Your task to perform on an android device: Open calendar and show me the fourth week of next month Image 0: 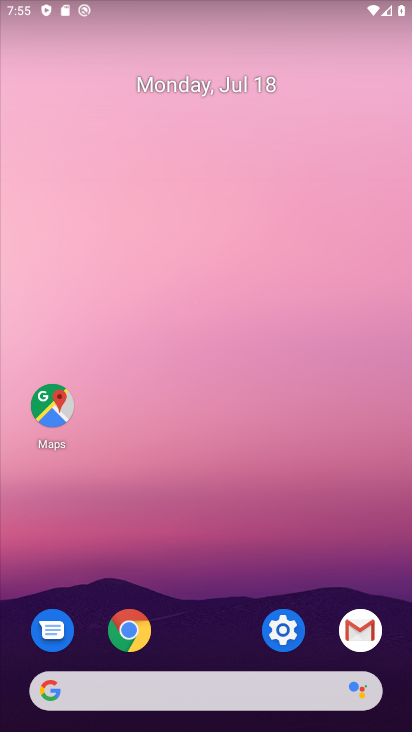
Step 0: drag from (303, 709) to (271, 134)
Your task to perform on an android device: Open calendar and show me the fourth week of next month Image 1: 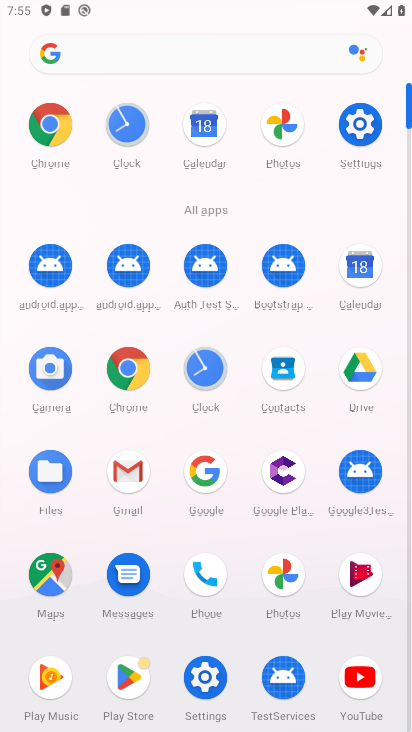
Step 1: click (340, 276)
Your task to perform on an android device: Open calendar and show me the fourth week of next month Image 2: 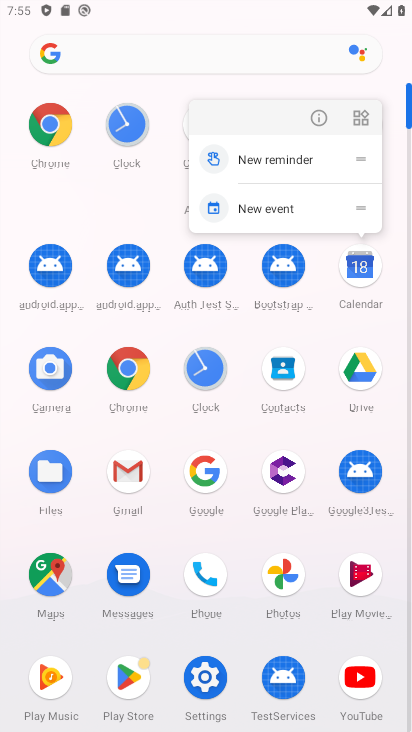
Step 2: click (346, 265)
Your task to perform on an android device: Open calendar and show me the fourth week of next month Image 3: 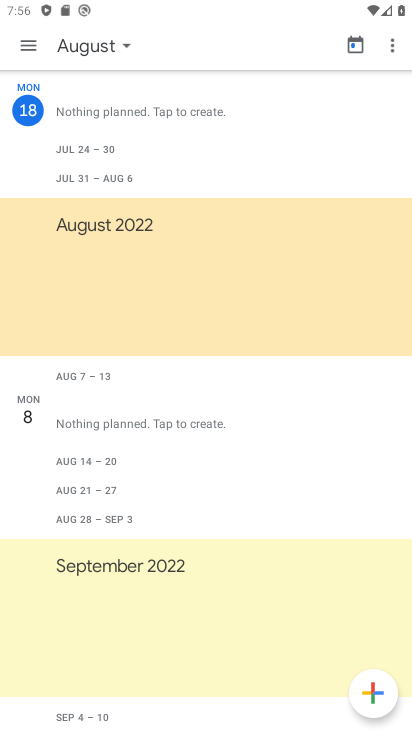
Step 3: click (25, 41)
Your task to perform on an android device: Open calendar and show me the fourth week of next month Image 4: 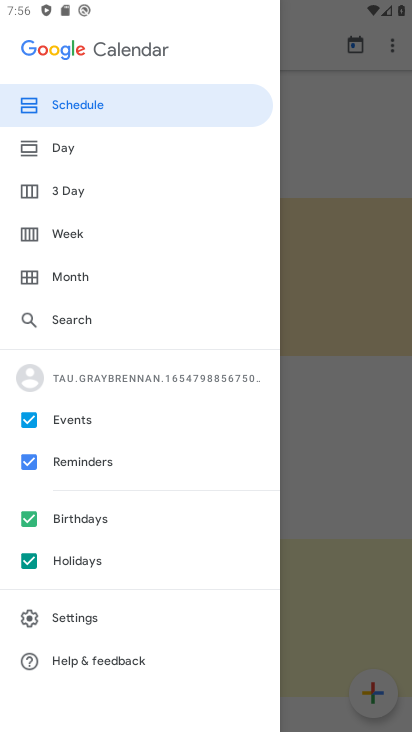
Step 4: click (63, 274)
Your task to perform on an android device: Open calendar and show me the fourth week of next month Image 5: 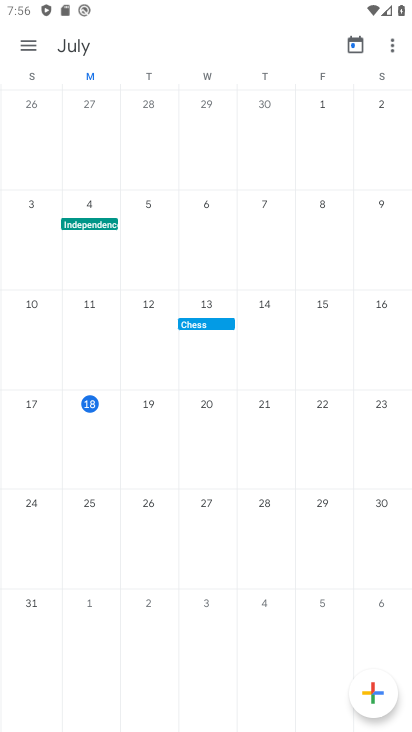
Step 5: drag from (380, 343) to (0, 338)
Your task to perform on an android device: Open calendar and show me the fourth week of next month Image 6: 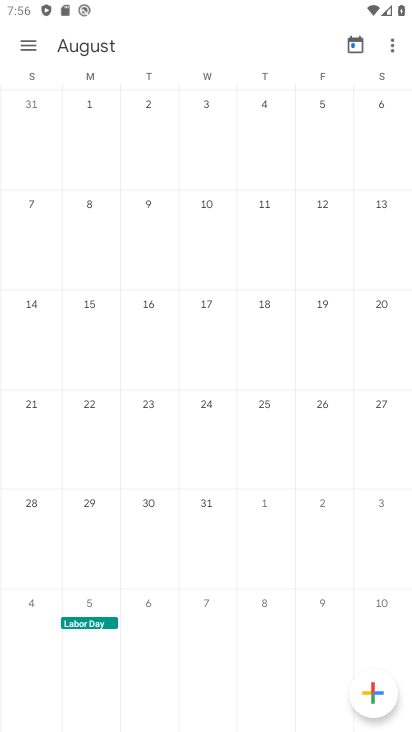
Step 6: click (89, 419)
Your task to perform on an android device: Open calendar and show me the fourth week of next month Image 7: 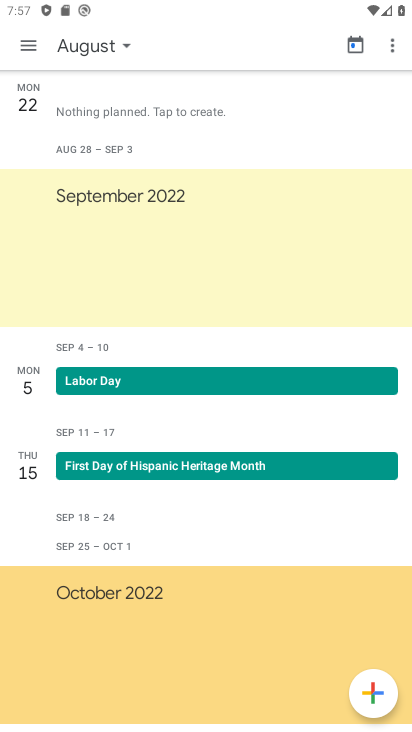
Step 7: task complete